Your task to perform on an android device: turn on showing notifications on the lock screen Image 0: 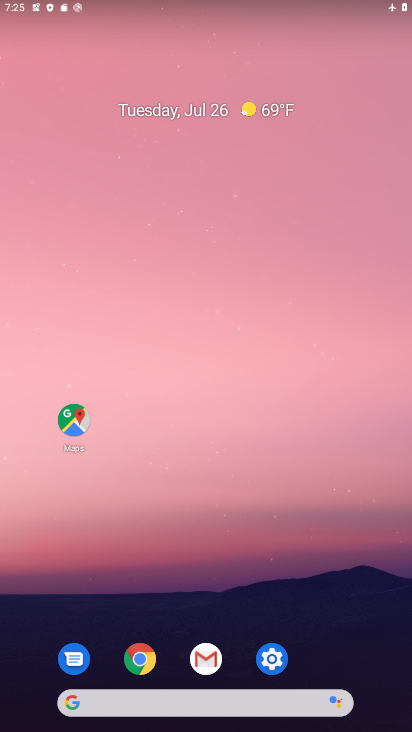
Step 0: click (277, 667)
Your task to perform on an android device: turn on showing notifications on the lock screen Image 1: 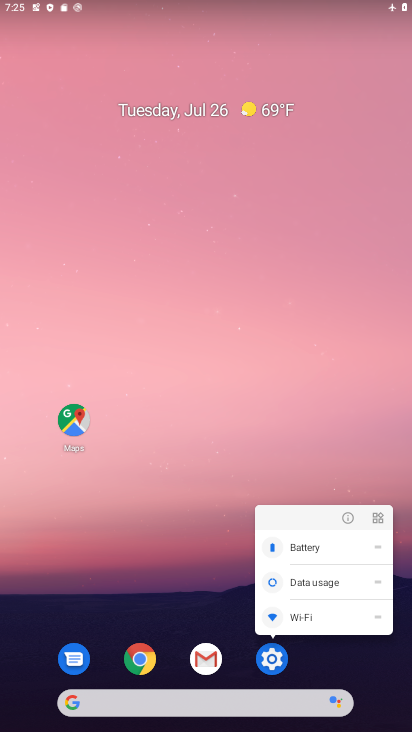
Step 1: click (273, 663)
Your task to perform on an android device: turn on showing notifications on the lock screen Image 2: 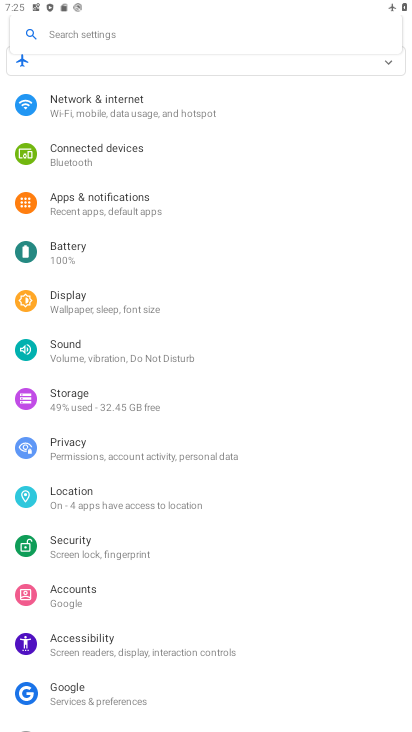
Step 2: click (114, 37)
Your task to perform on an android device: turn on showing notifications on the lock screen Image 3: 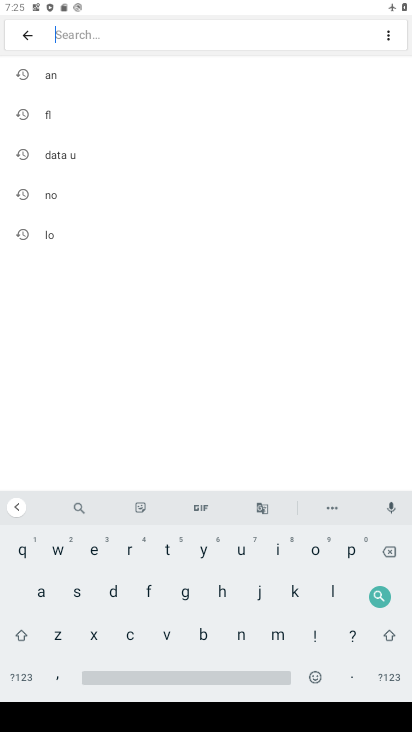
Step 3: click (61, 193)
Your task to perform on an android device: turn on showing notifications on the lock screen Image 4: 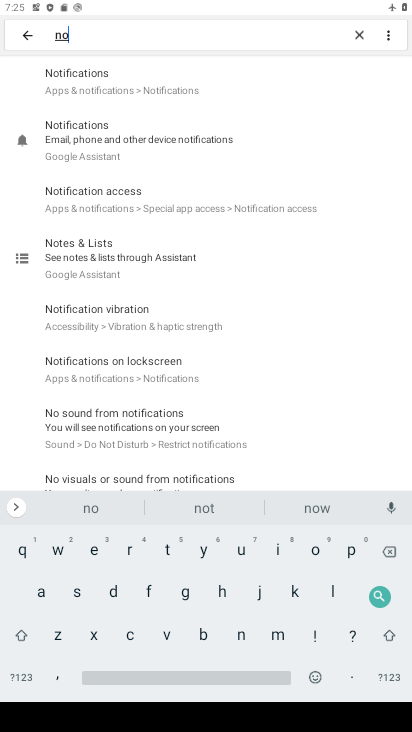
Step 4: click (110, 79)
Your task to perform on an android device: turn on showing notifications on the lock screen Image 5: 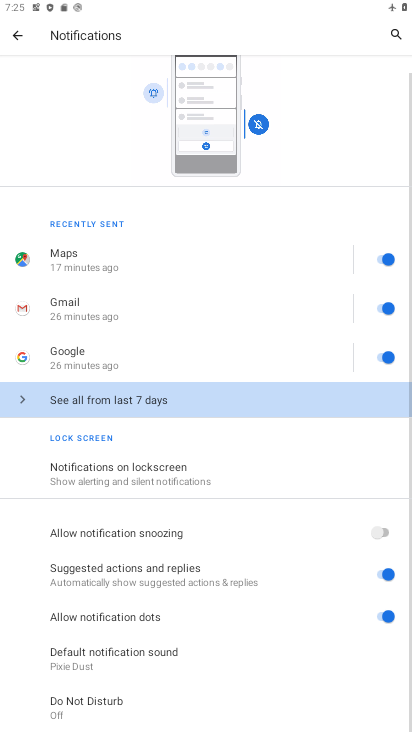
Step 5: click (97, 476)
Your task to perform on an android device: turn on showing notifications on the lock screen Image 6: 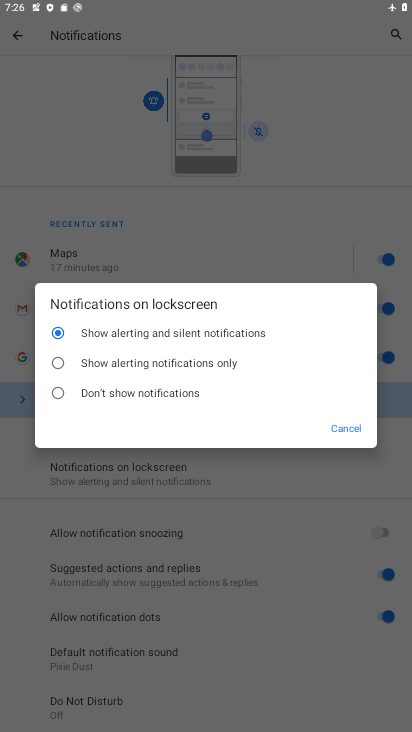
Step 6: task complete